Your task to perform on an android device: turn on improve location accuracy Image 0: 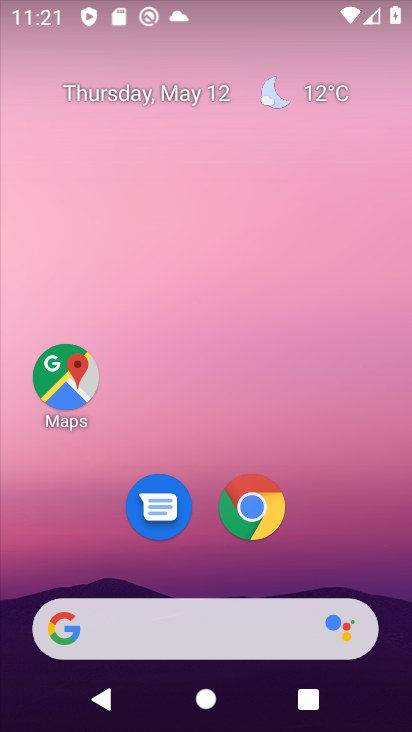
Step 0: drag from (220, 576) to (274, 34)
Your task to perform on an android device: turn on improve location accuracy Image 1: 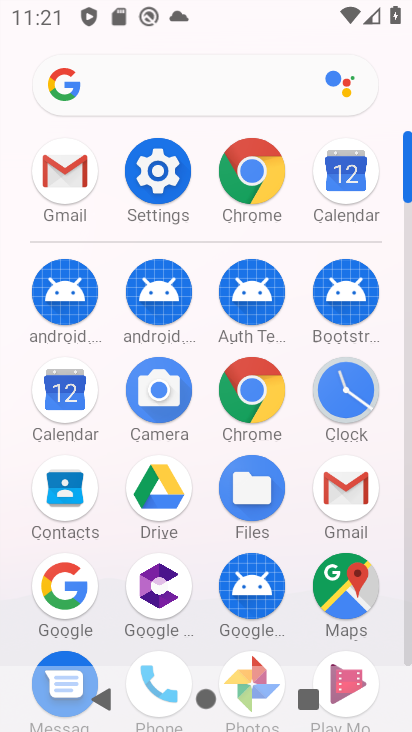
Step 1: click (157, 190)
Your task to perform on an android device: turn on improve location accuracy Image 2: 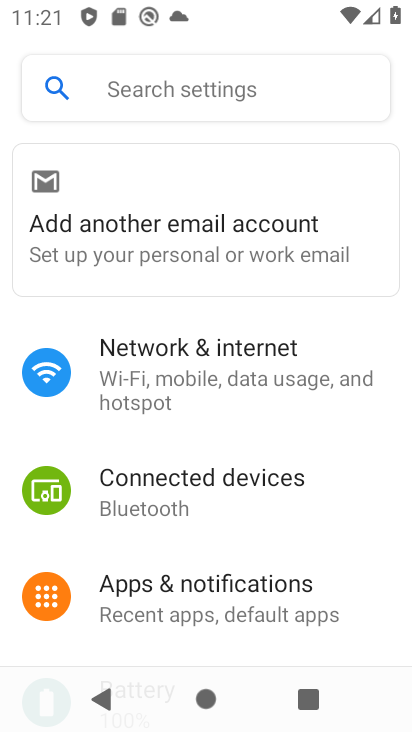
Step 2: drag from (255, 522) to (287, 140)
Your task to perform on an android device: turn on improve location accuracy Image 3: 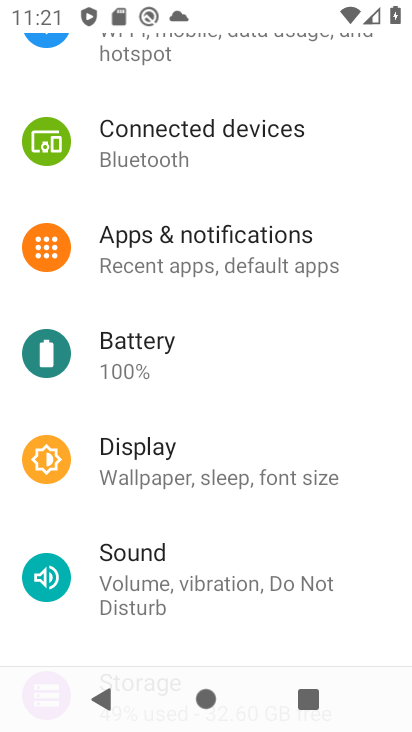
Step 3: drag from (164, 492) to (166, 185)
Your task to perform on an android device: turn on improve location accuracy Image 4: 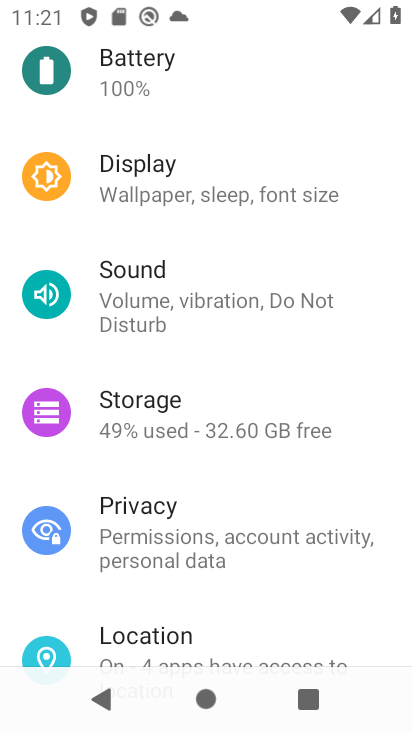
Step 4: click (149, 642)
Your task to perform on an android device: turn on improve location accuracy Image 5: 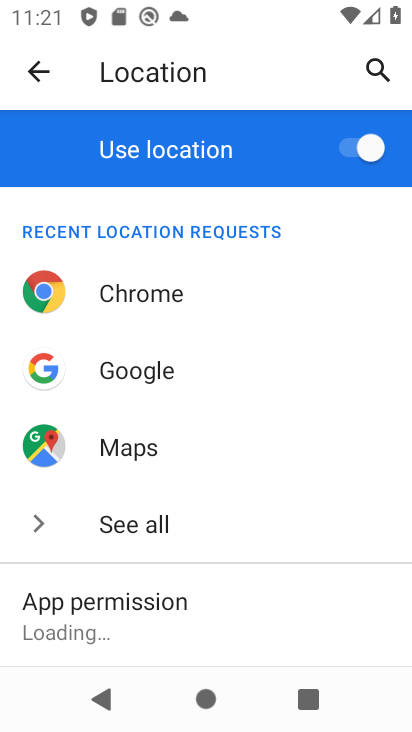
Step 5: drag from (175, 583) to (225, 225)
Your task to perform on an android device: turn on improve location accuracy Image 6: 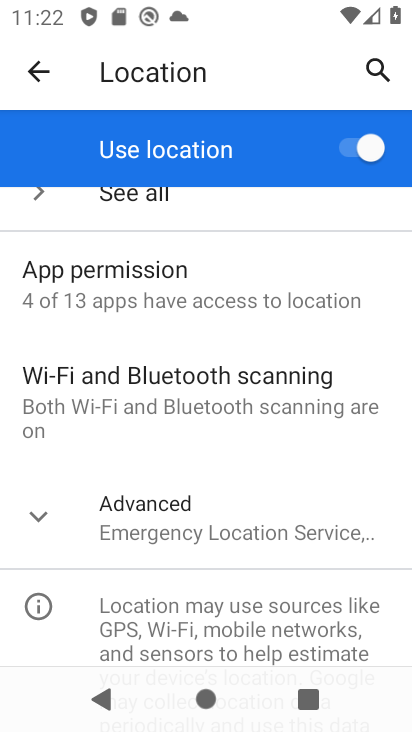
Step 6: click (211, 533)
Your task to perform on an android device: turn on improve location accuracy Image 7: 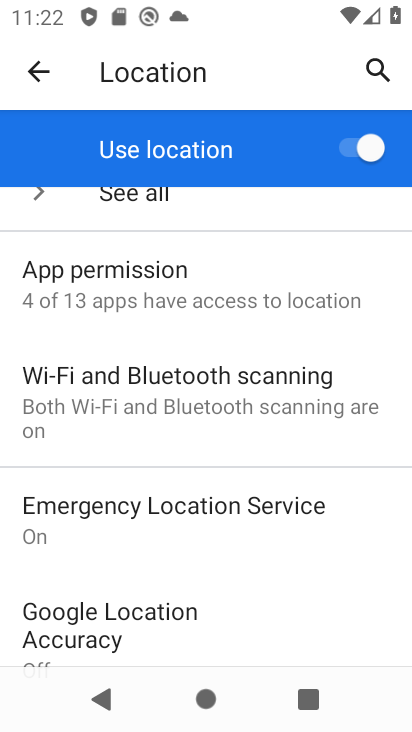
Step 7: drag from (183, 591) to (206, 329)
Your task to perform on an android device: turn on improve location accuracy Image 8: 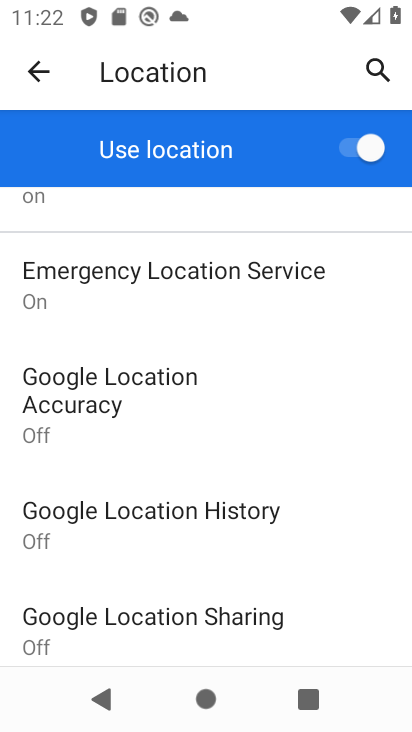
Step 8: click (144, 408)
Your task to perform on an android device: turn on improve location accuracy Image 9: 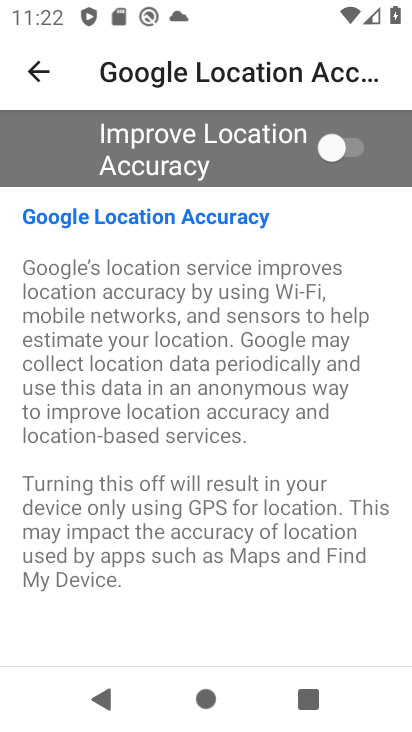
Step 9: click (310, 149)
Your task to perform on an android device: turn on improve location accuracy Image 10: 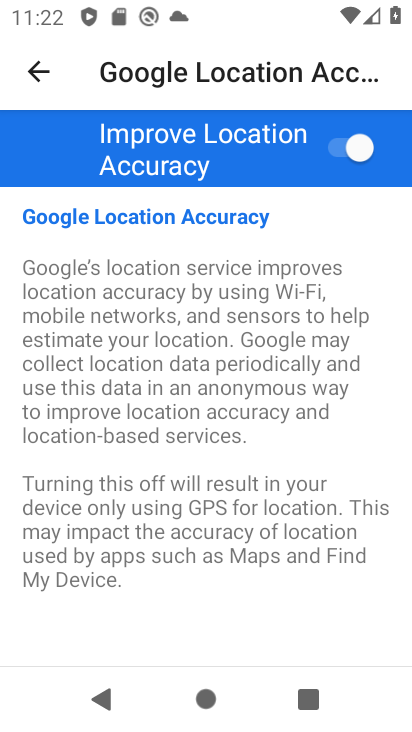
Step 10: task complete